Your task to perform on an android device: Go to display settings Image 0: 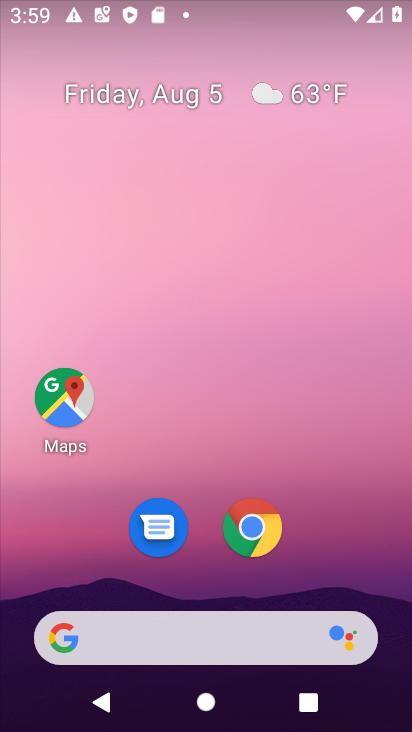
Step 0: drag from (211, 589) to (224, 82)
Your task to perform on an android device: Go to display settings Image 1: 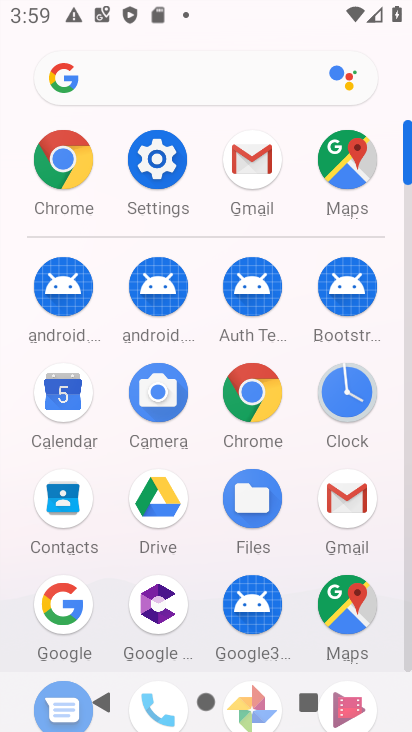
Step 1: click (148, 158)
Your task to perform on an android device: Go to display settings Image 2: 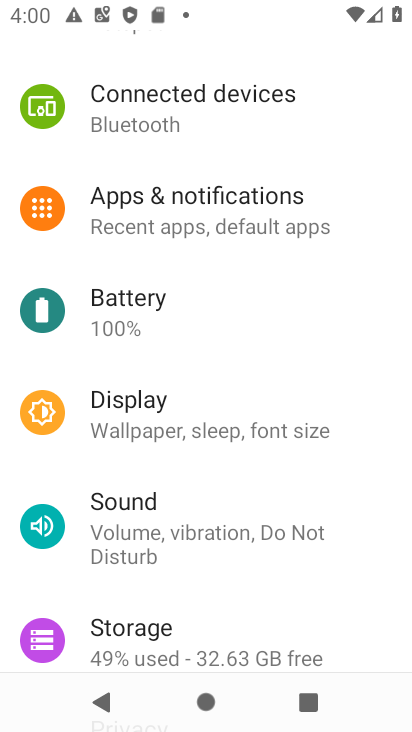
Step 2: click (131, 421)
Your task to perform on an android device: Go to display settings Image 3: 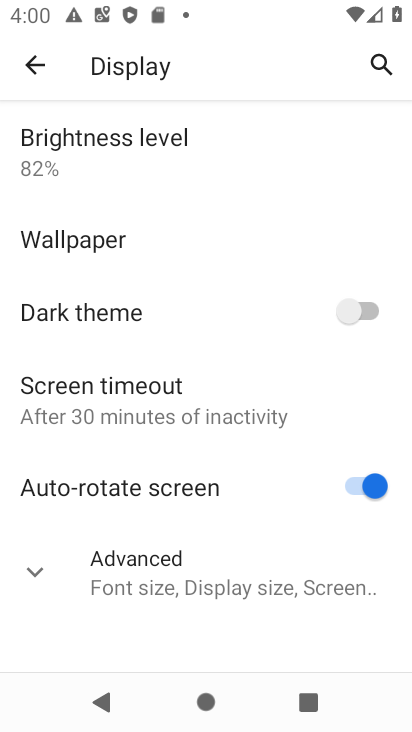
Step 3: task complete